Your task to perform on an android device: change notifications settings Image 0: 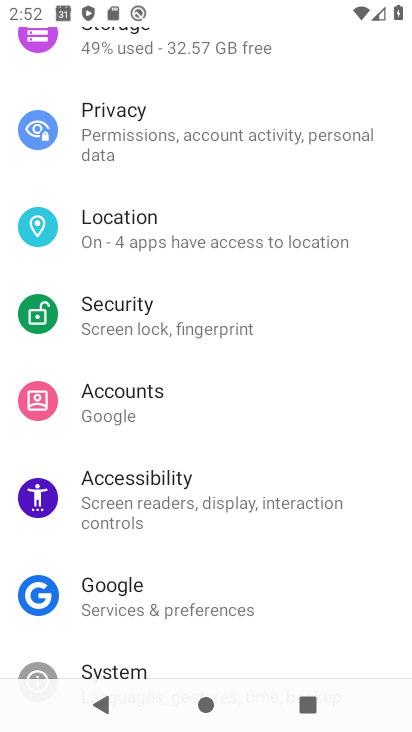
Step 0: drag from (132, 69) to (146, 560)
Your task to perform on an android device: change notifications settings Image 1: 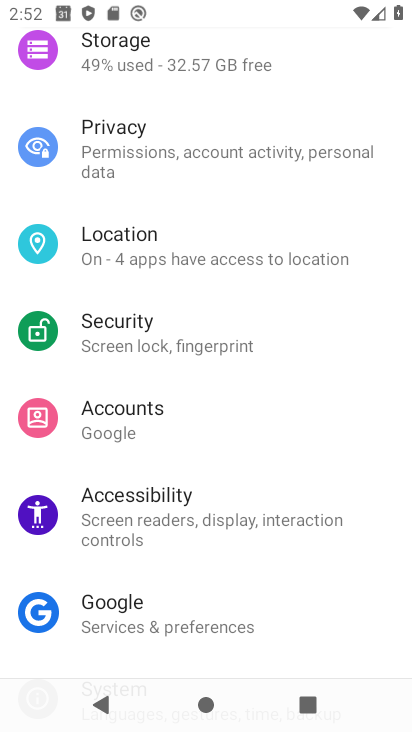
Step 1: drag from (166, 112) to (135, 679)
Your task to perform on an android device: change notifications settings Image 2: 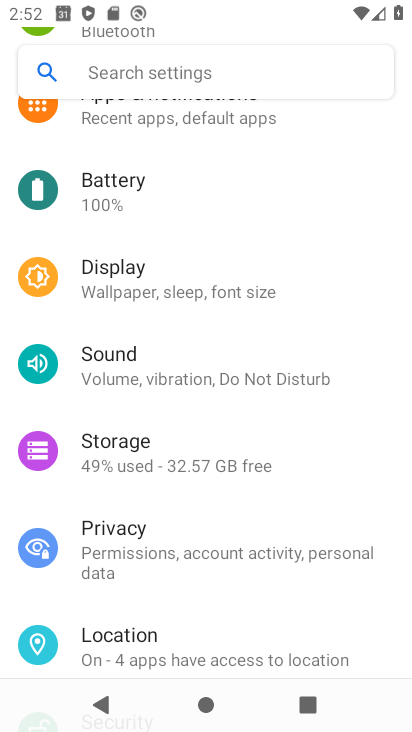
Step 2: drag from (188, 174) to (165, 593)
Your task to perform on an android device: change notifications settings Image 3: 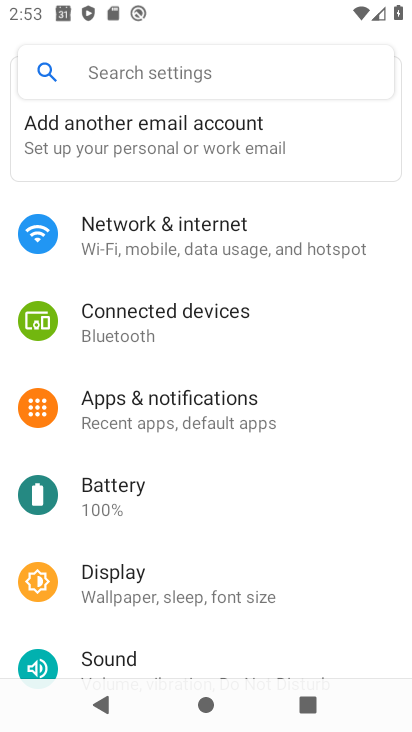
Step 3: click (189, 415)
Your task to perform on an android device: change notifications settings Image 4: 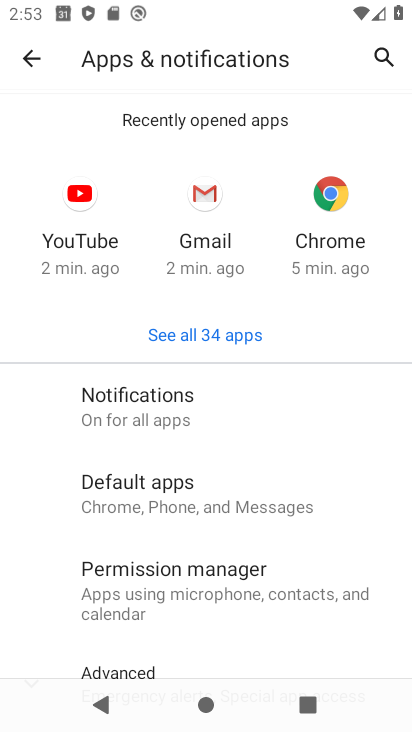
Step 4: click (244, 401)
Your task to perform on an android device: change notifications settings Image 5: 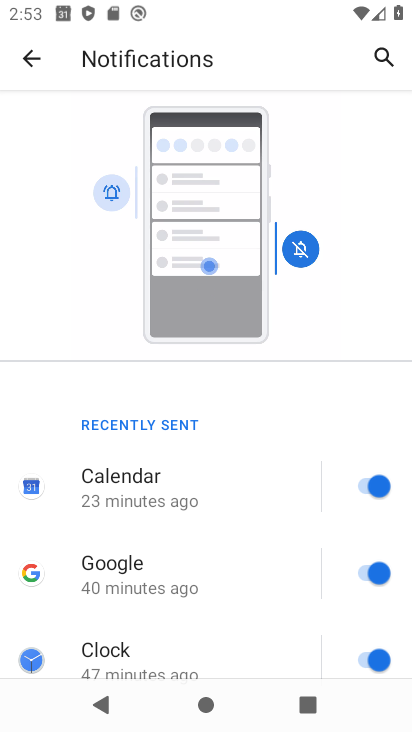
Step 5: task complete